Your task to perform on an android device: remove spam from my inbox in the gmail app Image 0: 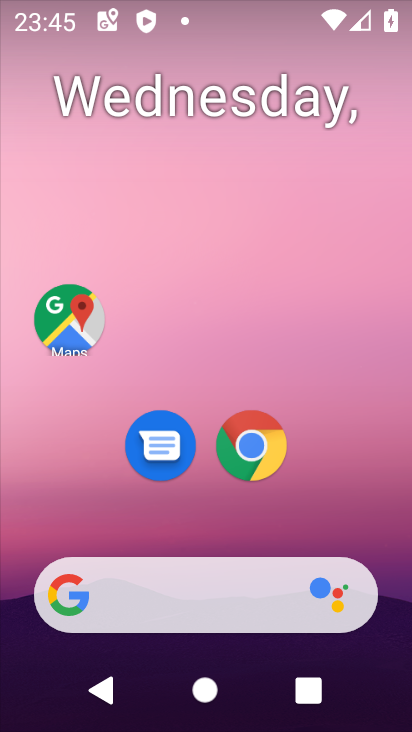
Step 0: drag from (274, 518) to (300, 192)
Your task to perform on an android device: remove spam from my inbox in the gmail app Image 1: 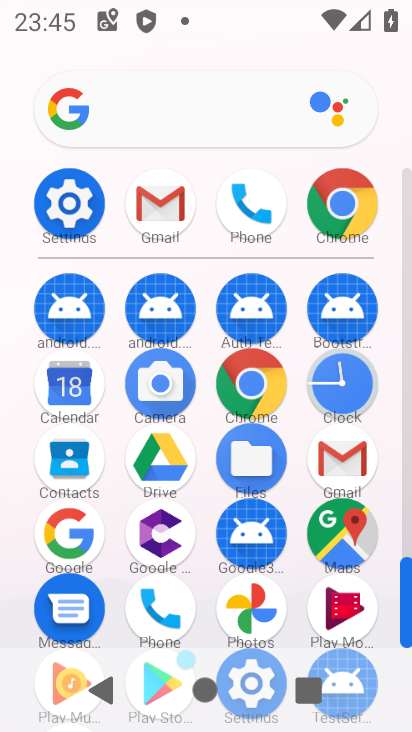
Step 1: click (323, 449)
Your task to perform on an android device: remove spam from my inbox in the gmail app Image 2: 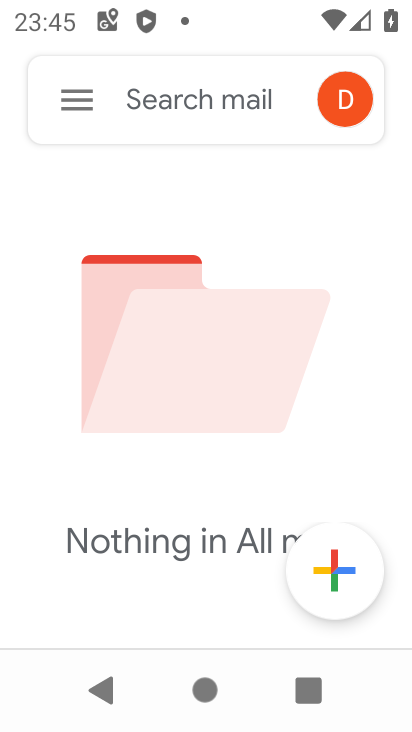
Step 2: click (59, 98)
Your task to perform on an android device: remove spam from my inbox in the gmail app Image 3: 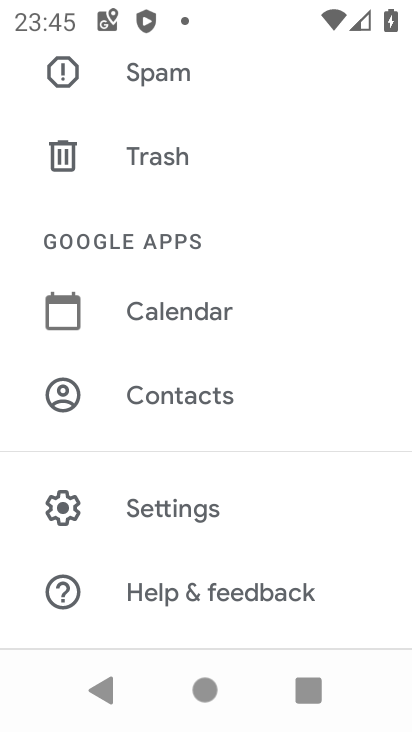
Step 3: click (154, 84)
Your task to perform on an android device: remove spam from my inbox in the gmail app Image 4: 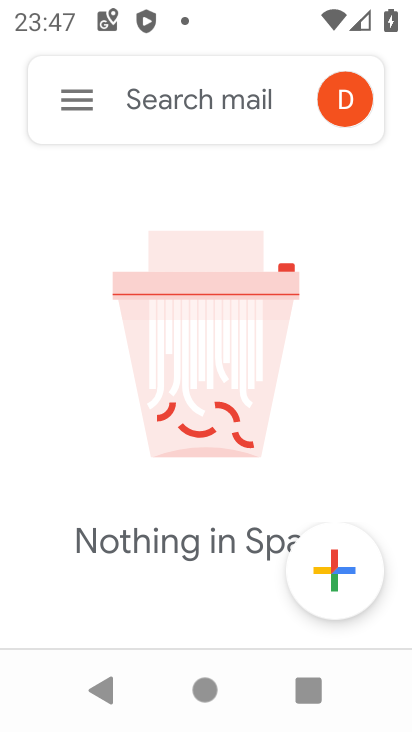
Step 4: task complete